Your task to perform on an android device: turn notification dots off Image 0: 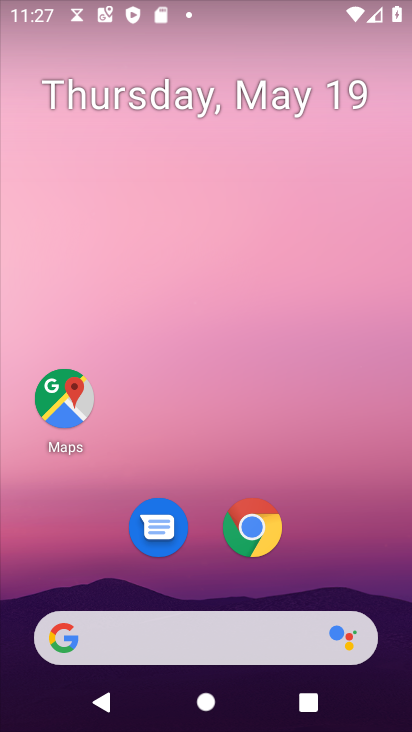
Step 0: drag from (215, 574) to (298, 169)
Your task to perform on an android device: turn notification dots off Image 1: 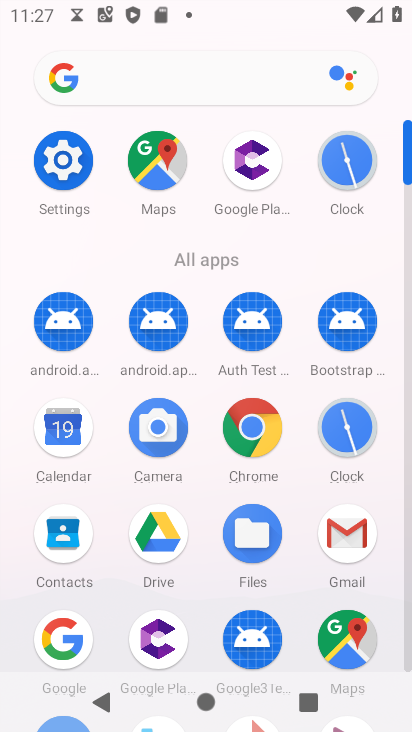
Step 1: click (65, 161)
Your task to perform on an android device: turn notification dots off Image 2: 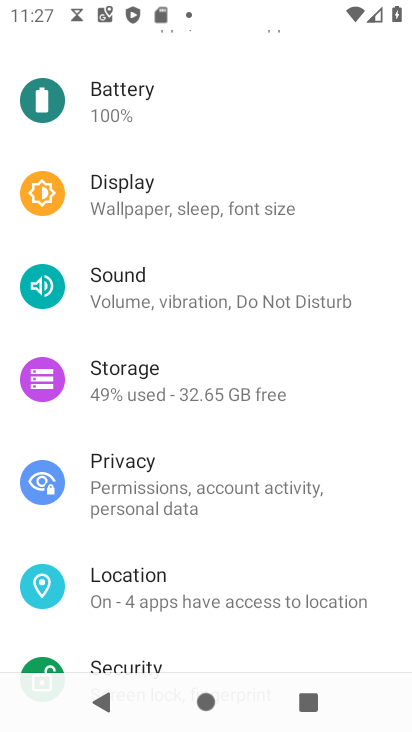
Step 2: drag from (228, 290) to (214, 671)
Your task to perform on an android device: turn notification dots off Image 3: 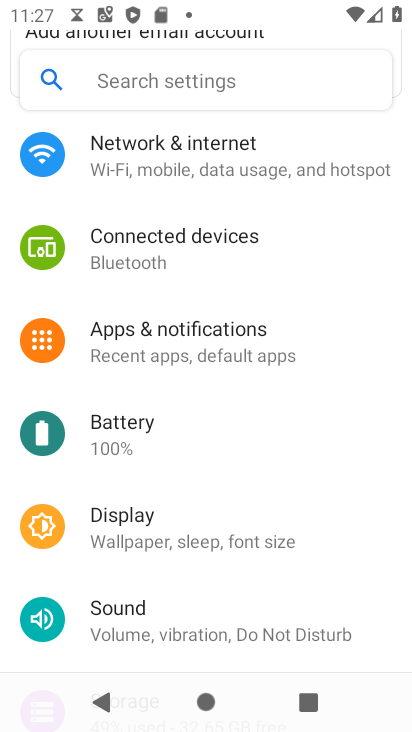
Step 3: click (224, 332)
Your task to perform on an android device: turn notification dots off Image 4: 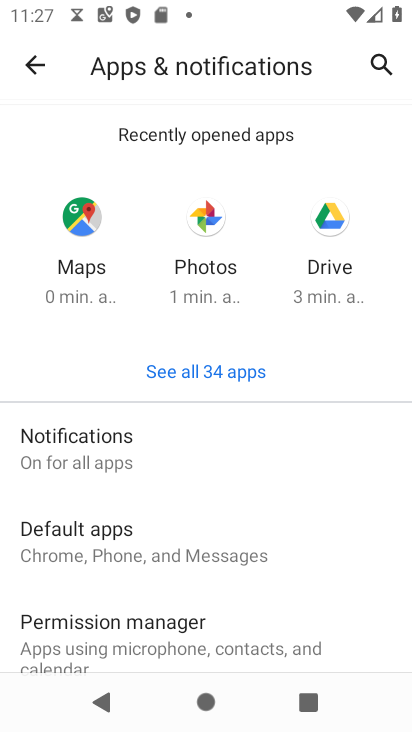
Step 4: click (155, 456)
Your task to perform on an android device: turn notification dots off Image 5: 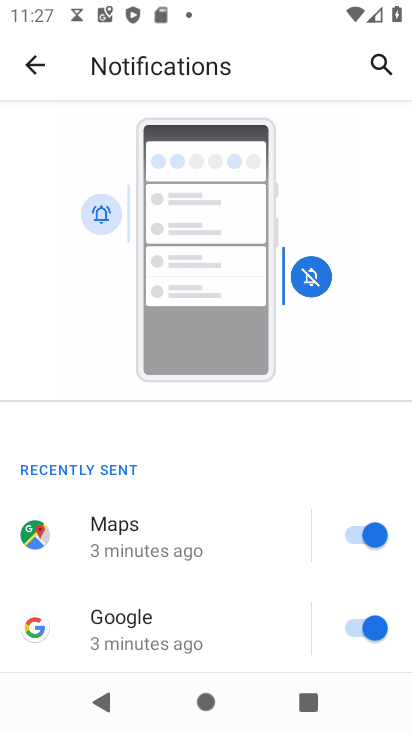
Step 5: drag from (183, 581) to (260, 239)
Your task to perform on an android device: turn notification dots off Image 6: 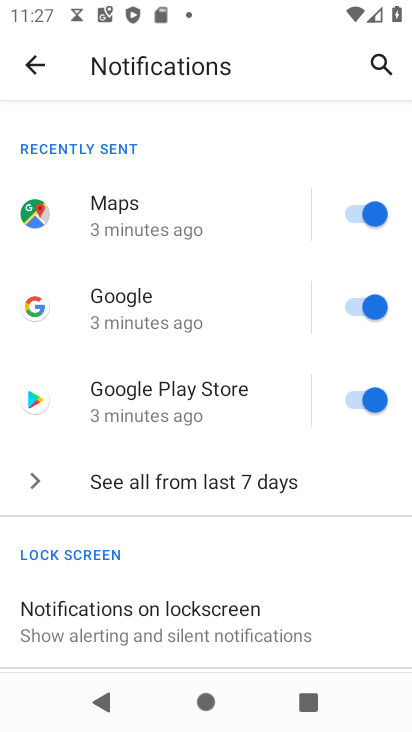
Step 6: drag from (222, 566) to (222, 482)
Your task to perform on an android device: turn notification dots off Image 7: 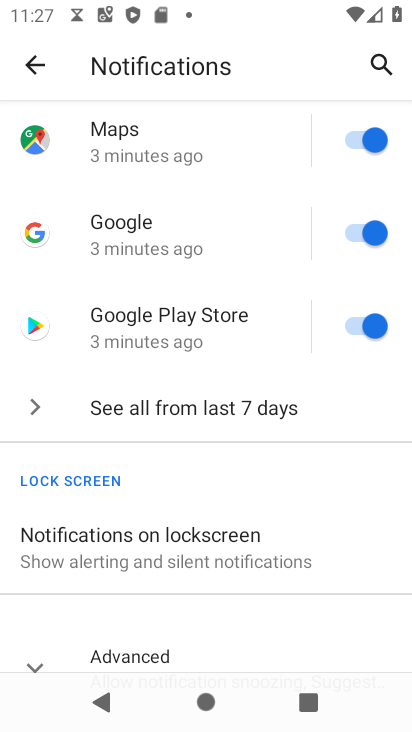
Step 7: drag from (192, 610) to (243, 168)
Your task to perform on an android device: turn notification dots off Image 8: 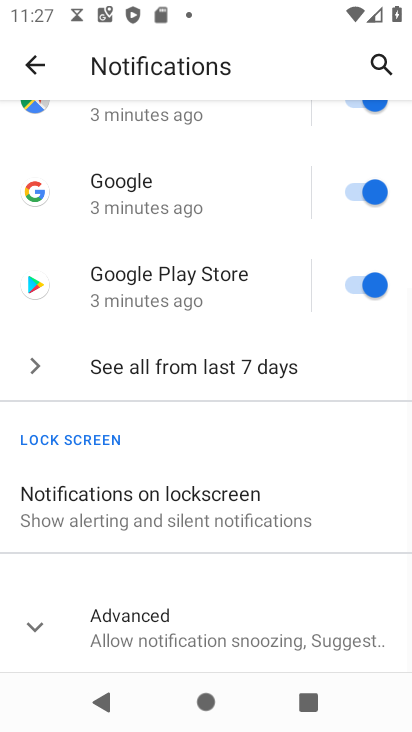
Step 8: click (114, 620)
Your task to perform on an android device: turn notification dots off Image 9: 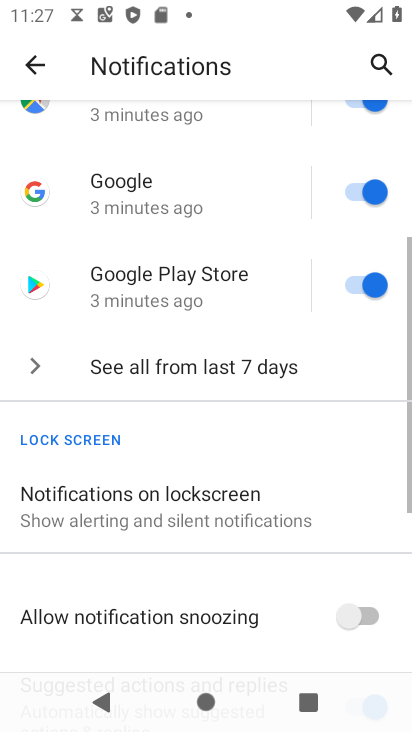
Step 9: drag from (227, 592) to (245, 122)
Your task to perform on an android device: turn notification dots off Image 10: 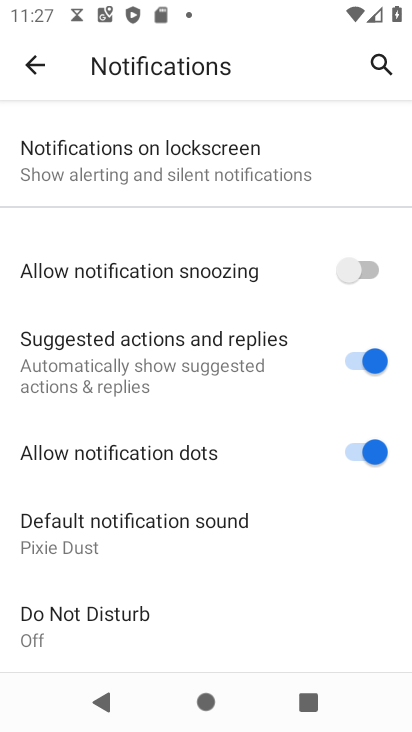
Step 10: click (347, 462)
Your task to perform on an android device: turn notification dots off Image 11: 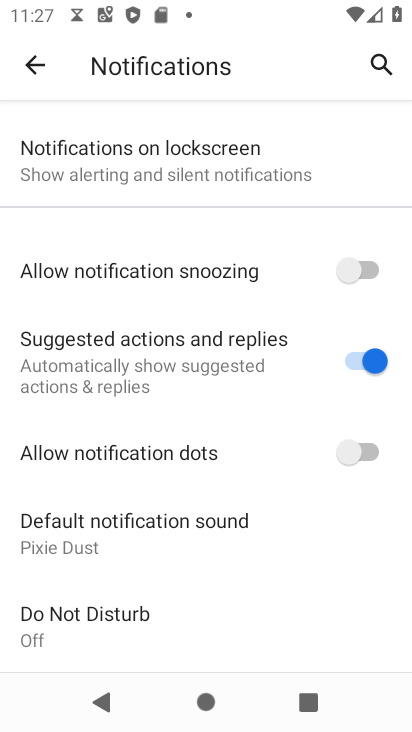
Step 11: task complete